Your task to perform on an android device: Open Google Maps and go to "Timeline" Image 0: 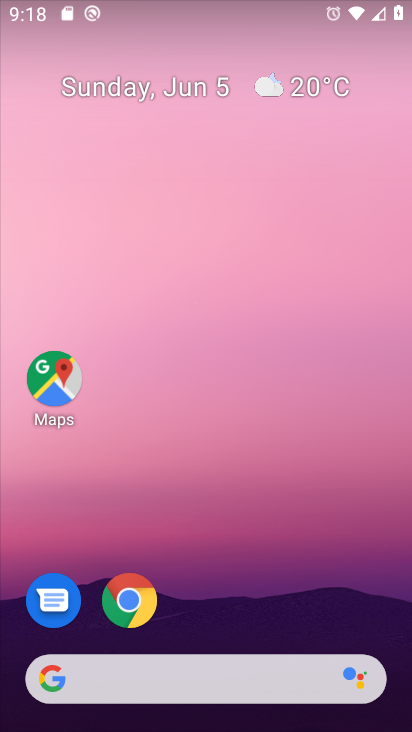
Step 0: click (49, 364)
Your task to perform on an android device: Open Google Maps and go to "Timeline" Image 1: 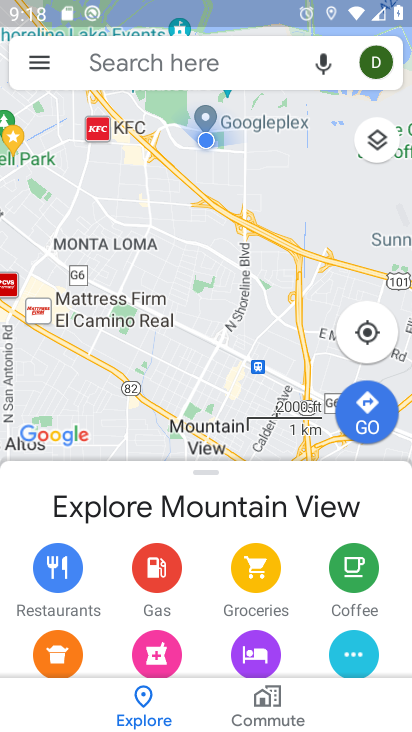
Step 1: click (37, 63)
Your task to perform on an android device: Open Google Maps and go to "Timeline" Image 2: 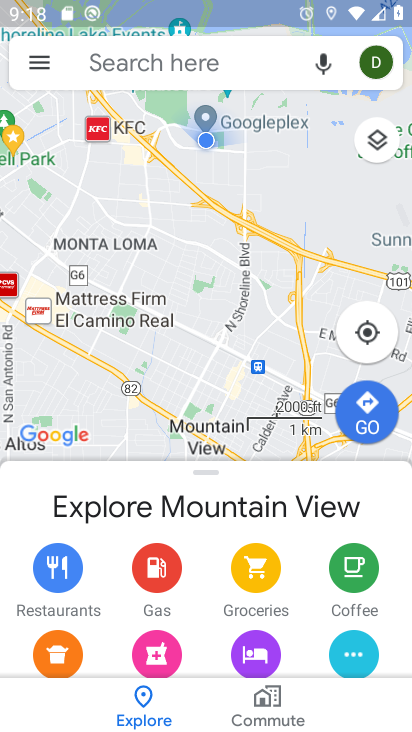
Step 2: click (37, 65)
Your task to perform on an android device: Open Google Maps and go to "Timeline" Image 3: 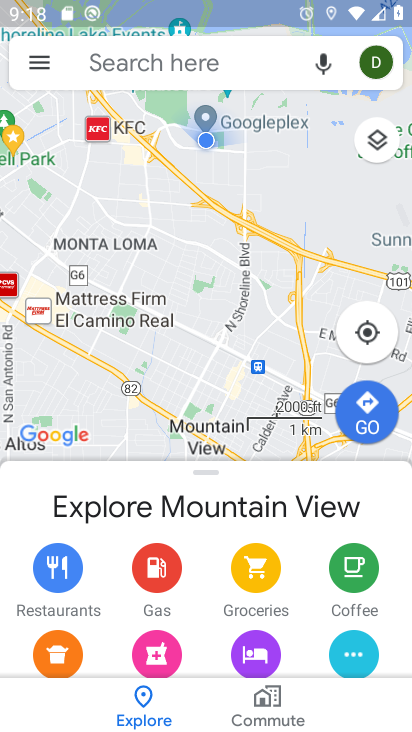
Step 3: click (44, 57)
Your task to perform on an android device: Open Google Maps and go to "Timeline" Image 4: 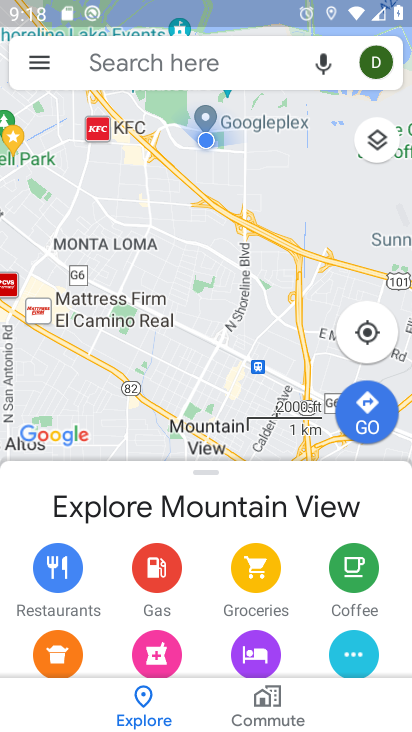
Step 4: click (42, 58)
Your task to perform on an android device: Open Google Maps and go to "Timeline" Image 5: 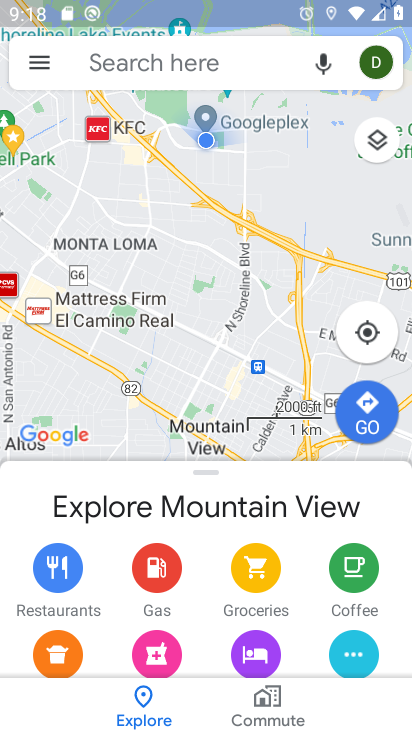
Step 5: drag from (243, 374) to (278, 142)
Your task to perform on an android device: Open Google Maps and go to "Timeline" Image 6: 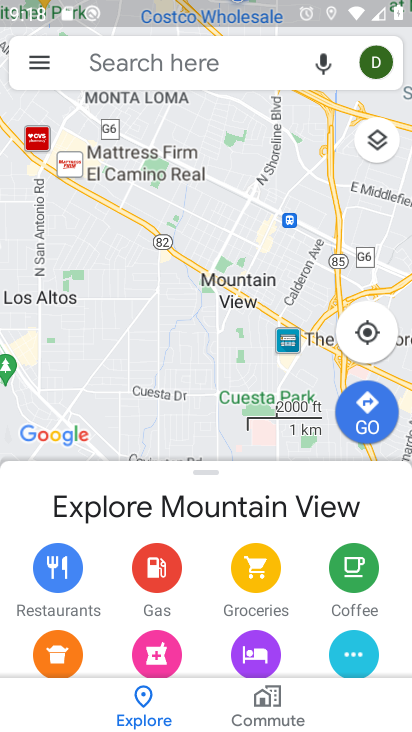
Step 6: click (36, 59)
Your task to perform on an android device: Open Google Maps and go to "Timeline" Image 7: 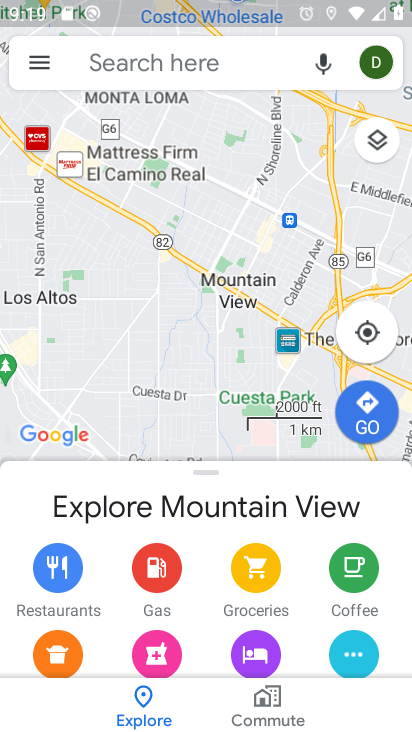
Step 7: click (36, 61)
Your task to perform on an android device: Open Google Maps and go to "Timeline" Image 8: 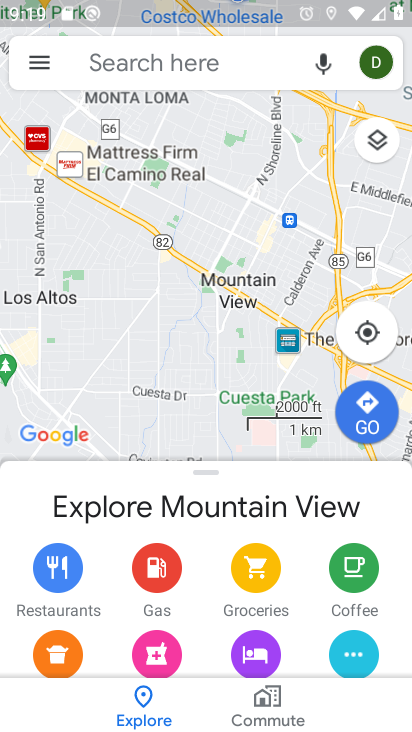
Step 8: drag from (216, 125) to (272, 417)
Your task to perform on an android device: Open Google Maps and go to "Timeline" Image 9: 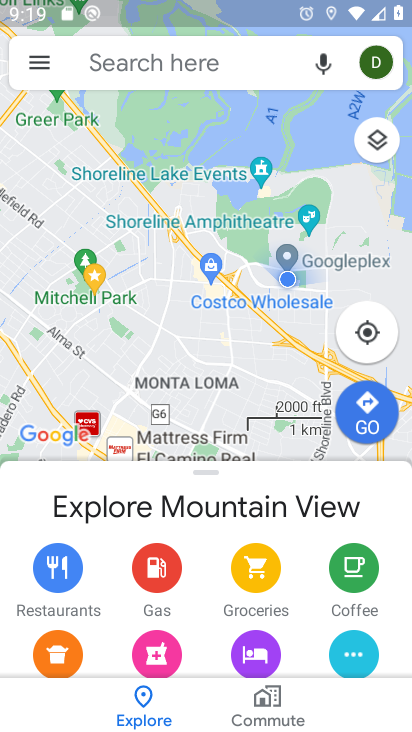
Step 9: click (43, 61)
Your task to perform on an android device: Open Google Maps and go to "Timeline" Image 10: 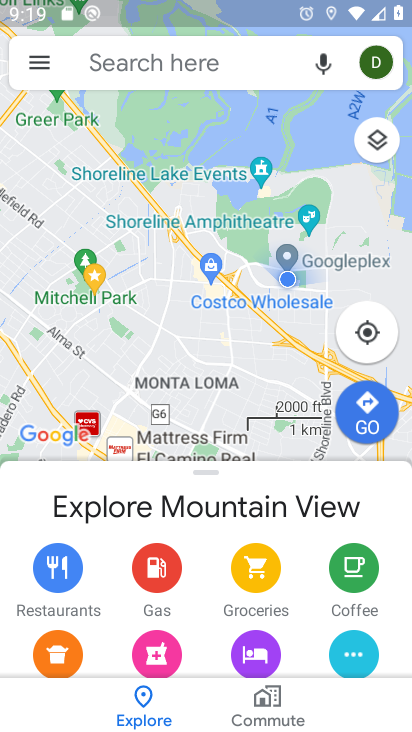
Step 10: click (43, 59)
Your task to perform on an android device: Open Google Maps and go to "Timeline" Image 11: 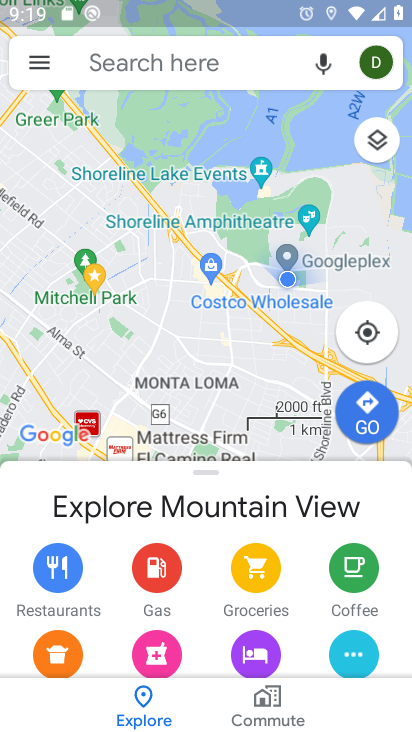
Step 11: click (43, 59)
Your task to perform on an android device: Open Google Maps and go to "Timeline" Image 12: 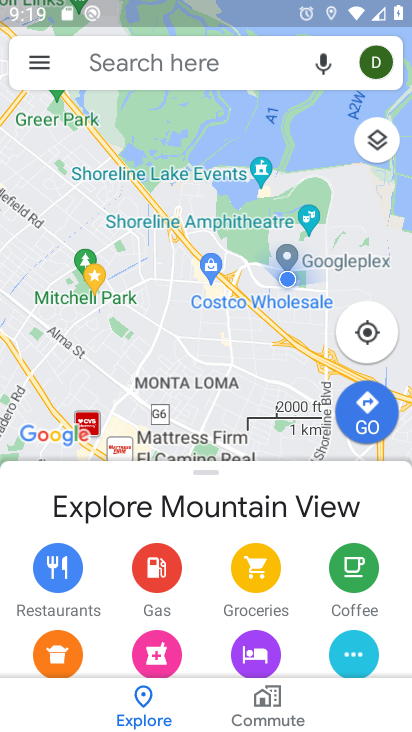
Step 12: click (43, 59)
Your task to perform on an android device: Open Google Maps and go to "Timeline" Image 13: 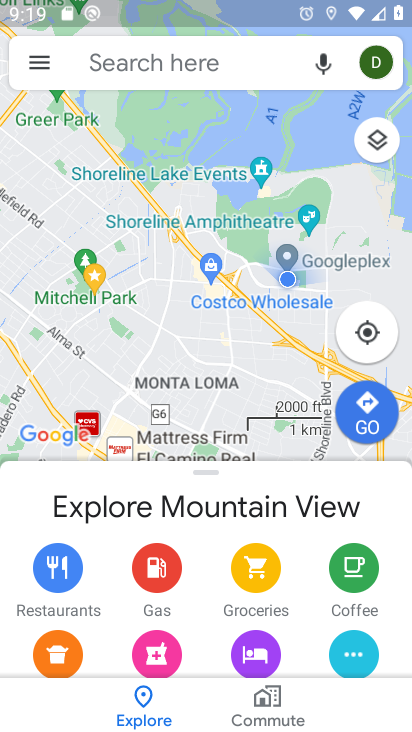
Step 13: click (43, 59)
Your task to perform on an android device: Open Google Maps and go to "Timeline" Image 14: 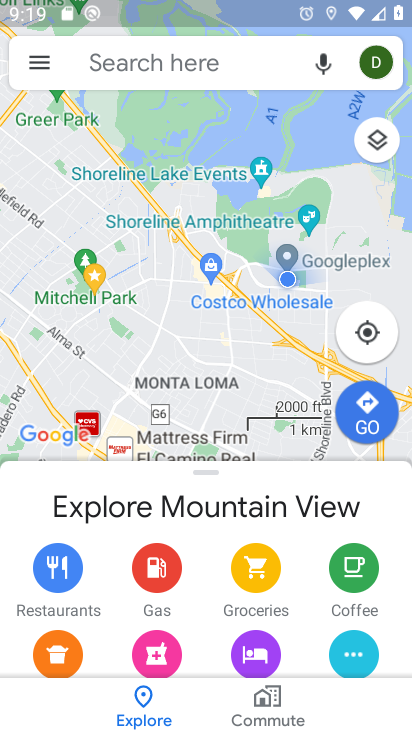
Step 14: click (43, 59)
Your task to perform on an android device: Open Google Maps and go to "Timeline" Image 15: 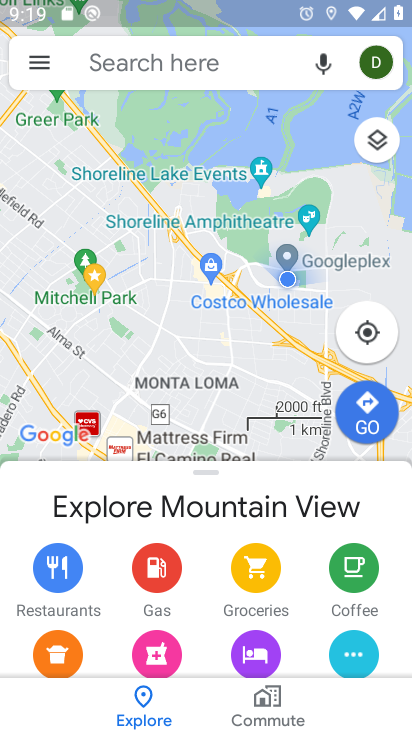
Step 15: click (43, 59)
Your task to perform on an android device: Open Google Maps and go to "Timeline" Image 16: 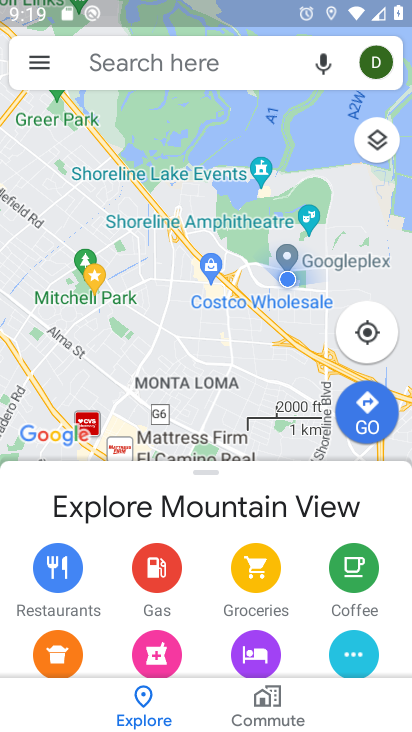
Step 16: click (43, 59)
Your task to perform on an android device: Open Google Maps and go to "Timeline" Image 17: 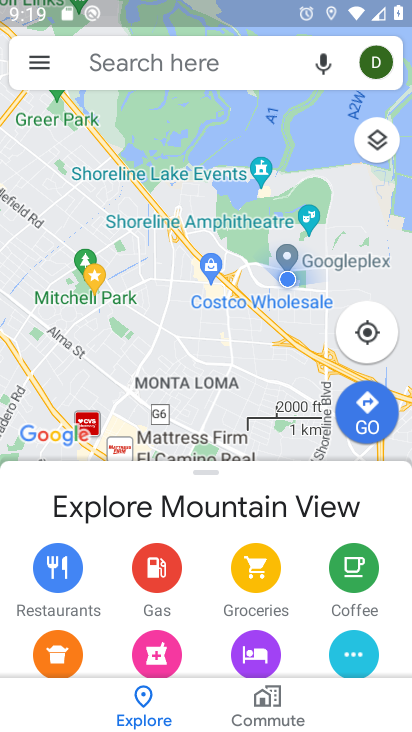
Step 17: click (43, 59)
Your task to perform on an android device: Open Google Maps and go to "Timeline" Image 18: 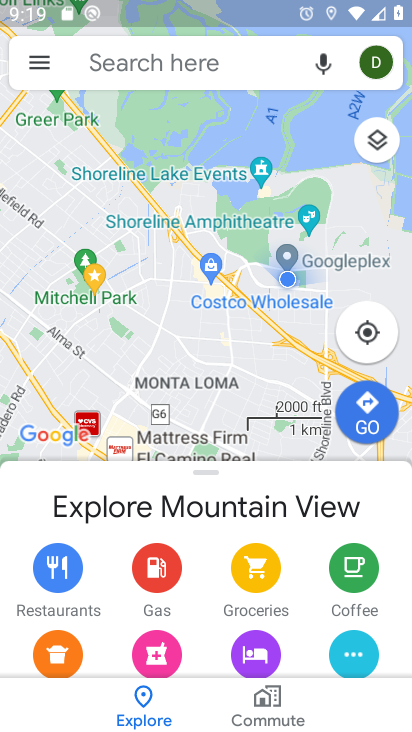
Step 18: click (43, 59)
Your task to perform on an android device: Open Google Maps and go to "Timeline" Image 19: 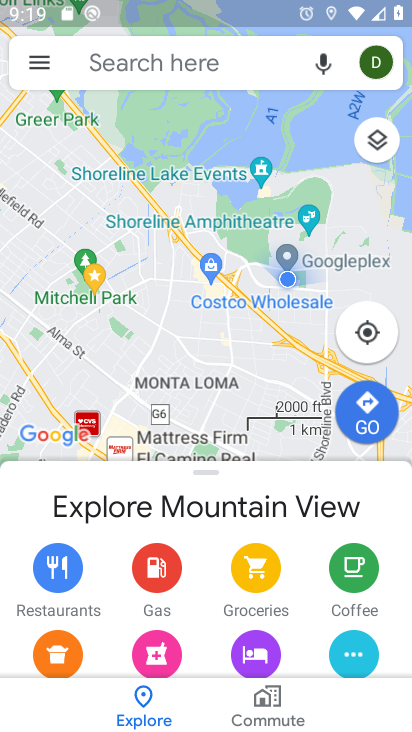
Step 19: click (43, 59)
Your task to perform on an android device: Open Google Maps and go to "Timeline" Image 20: 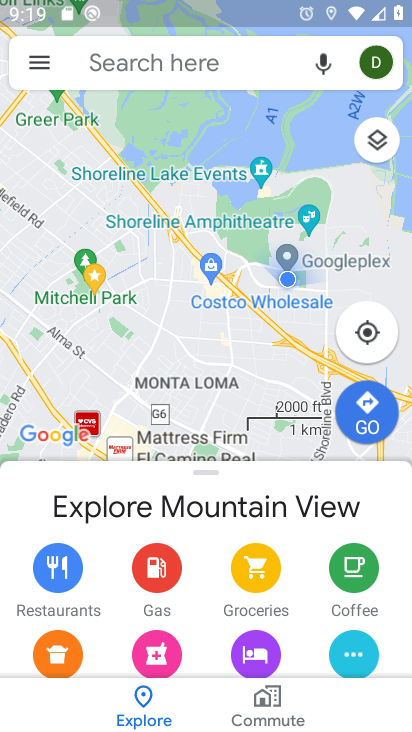
Step 20: press back button
Your task to perform on an android device: Open Google Maps and go to "Timeline" Image 21: 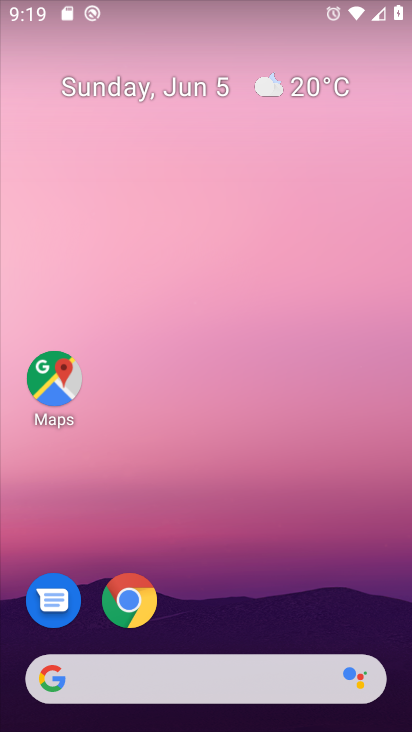
Step 21: click (44, 380)
Your task to perform on an android device: Open Google Maps and go to "Timeline" Image 22: 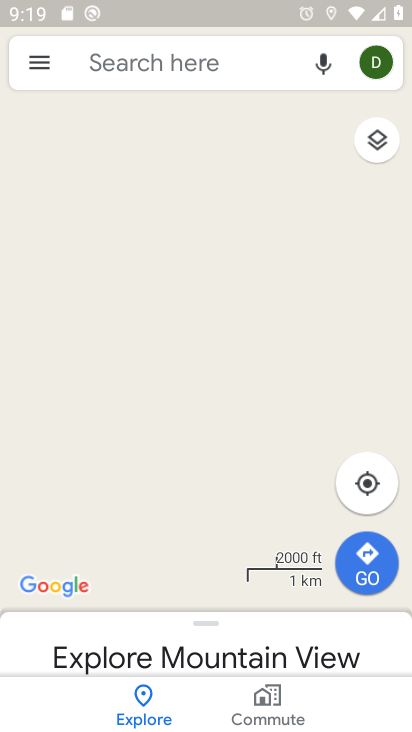
Step 22: click (37, 67)
Your task to perform on an android device: Open Google Maps and go to "Timeline" Image 23: 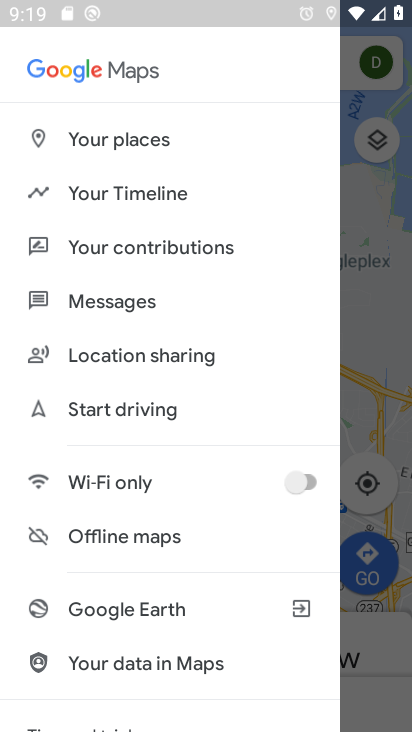
Step 23: click (137, 180)
Your task to perform on an android device: Open Google Maps and go to "Timeline" Image 24: 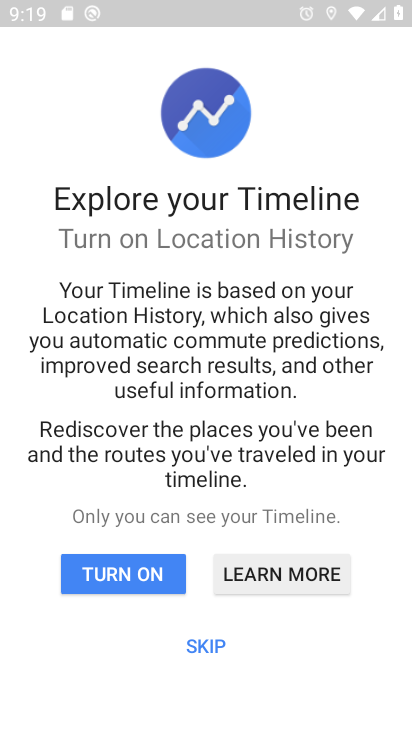
Step 24: click (214, 638)
Your task to perform on an android device: Open Google Maps and go to "Timeline" Image 25: 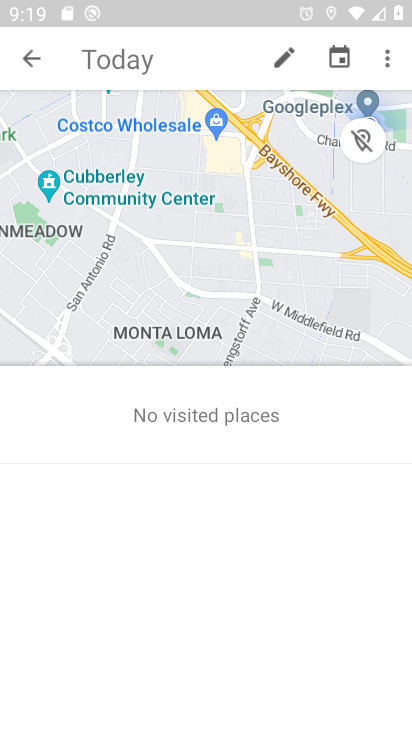
Step 25: task complete